Your task to perform on an android device: Go to battery settings Image 0: 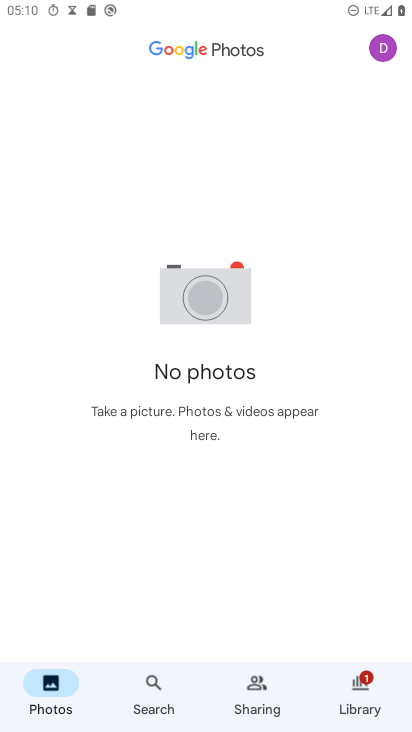
Step 0: press home button
Your task to perform on an android device: Go to battery settings Image 1: 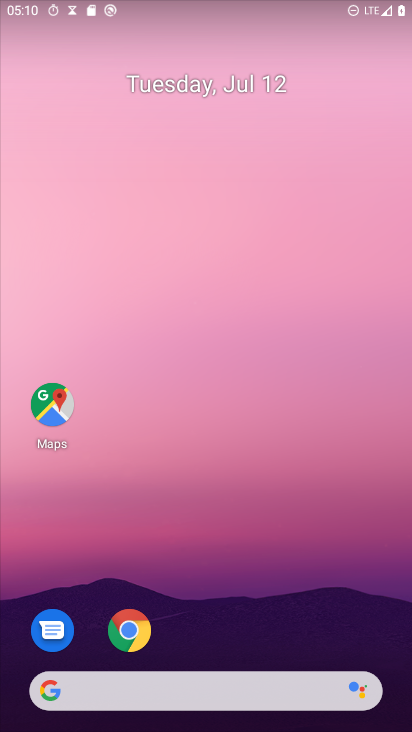
Step 1: drag from (245, 723) to (239, 9)
Your task to perform on an android device: Go to battery settings Image 2: 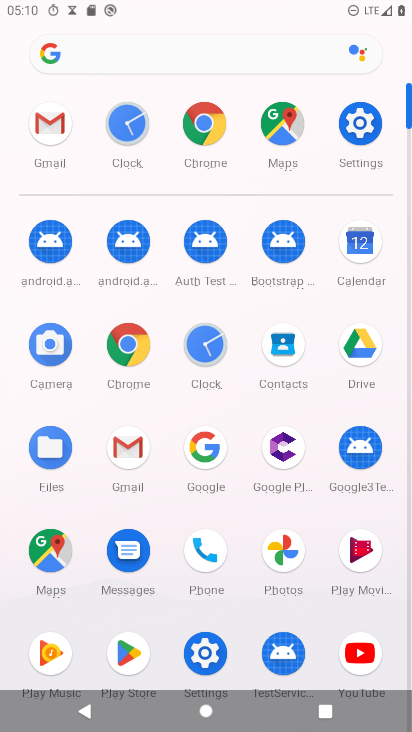
Step 2: click (369, 114)
Your task to perform on an android device: Go to battery settings Image 3: 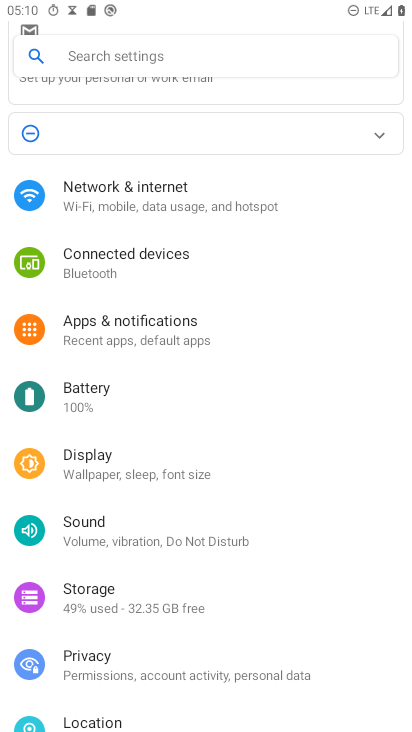
Step 3: click (96, 388)
Your task to perform on an android device: Go to battery settings Image 4: 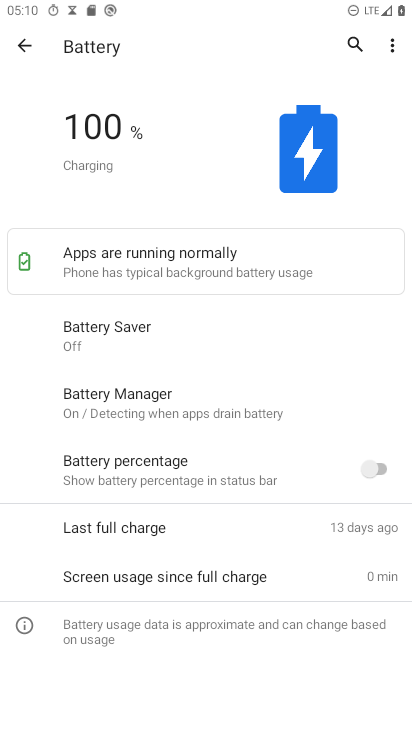
Step 4: task complete